Your task to perform on an android device: create a new album in the google photos Image 0: 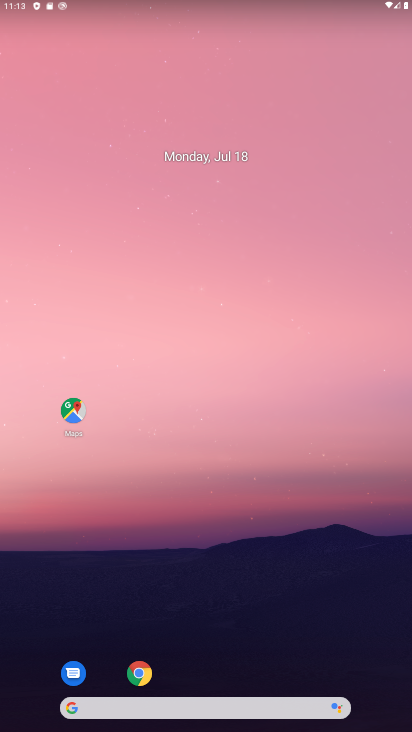
Step 0: drag from (209, 677) to (254, 91)
Your task to perform on an android device: create a new album in the google photos Image 1: 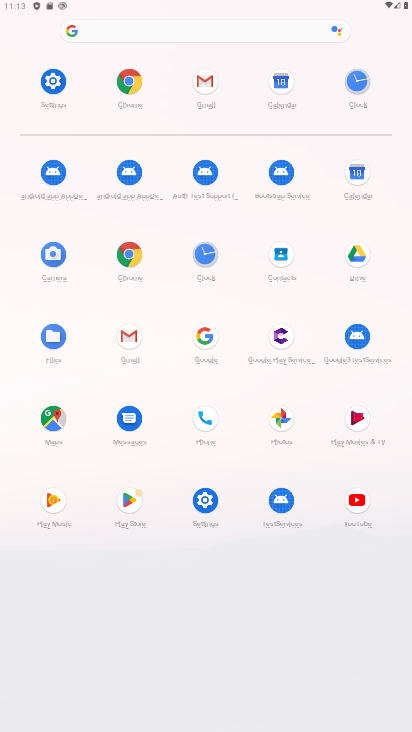
Step 1: click (282, 416)
Your task to perform on an android device: create a new album in the google photos Image 2: 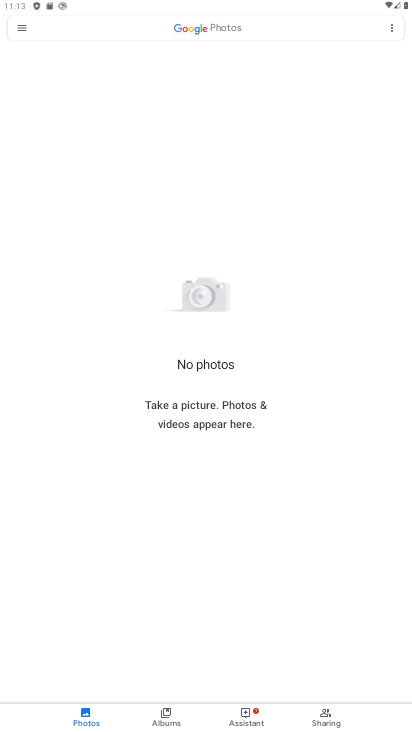
Step 2: click (165, 715)
Your task to perform on an android device: create a new album in the google photos Image 3: 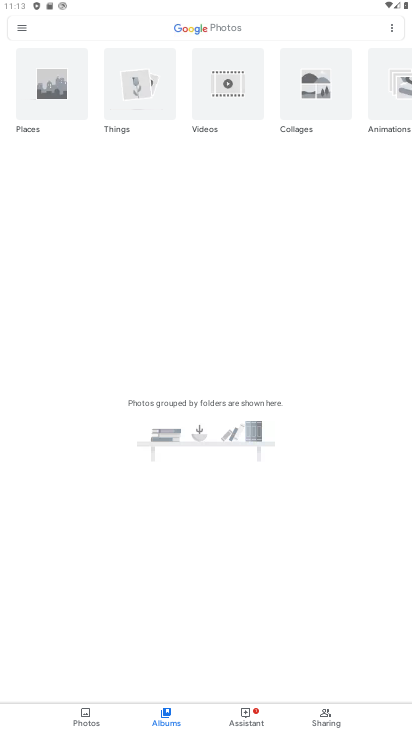
Step 3: click (388, 31)
Your task to perform on an android device: create a new album in the google photos Image 4: 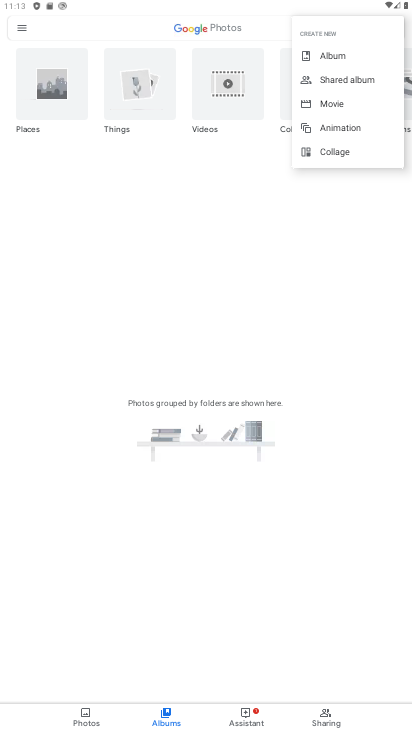
Step 4: click (344, 51)
Your task to perform on an android device: create a new album in the google photos Image 5: 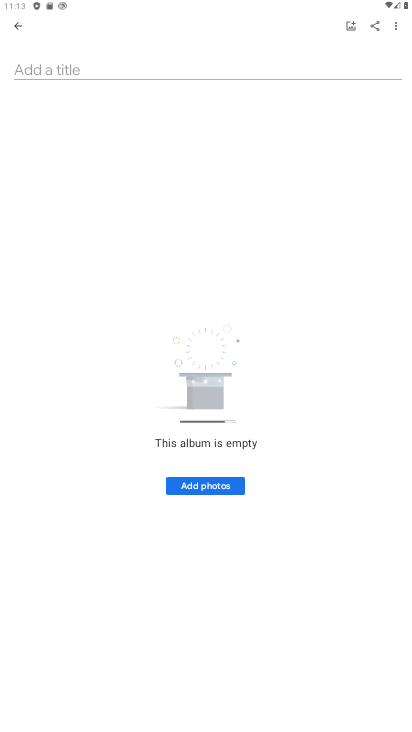
Step 5: click (202, 489)
Your task to perform on an android device: create a new album in the google photos Image 6: 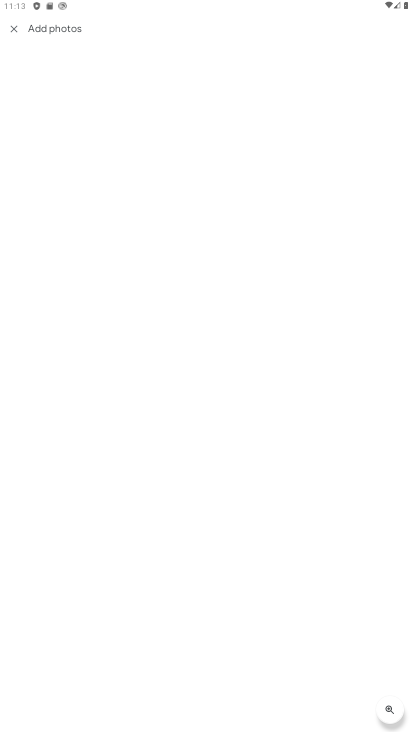
Step 6: task complete